Your task to perform on an android device: Open Reddit.com Image 0: 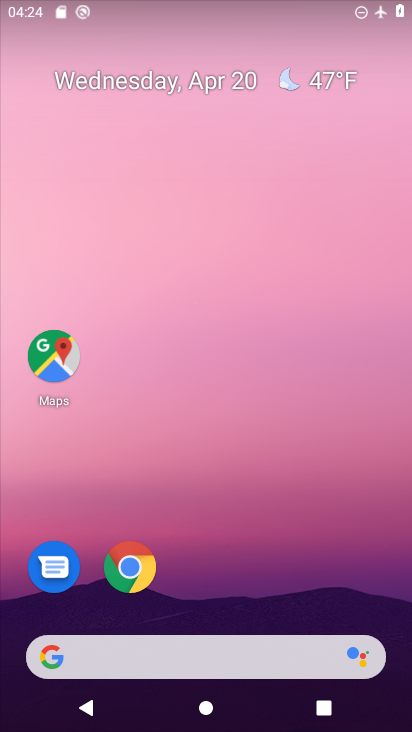
Step 0: click (156, 648)
Your task to perform on an android device: Open Reddit.com Image 1: 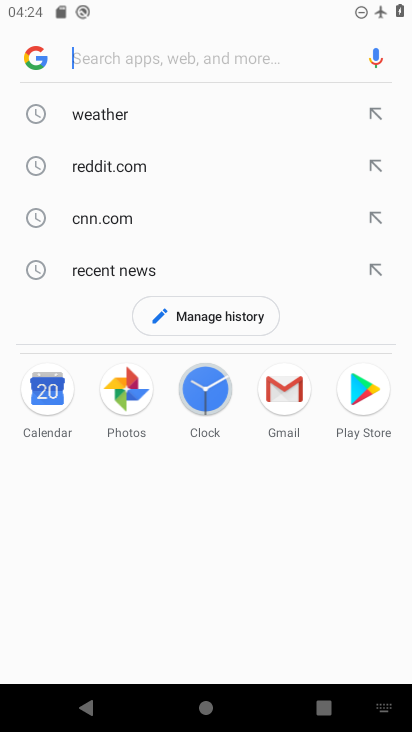
Step 1: click (180, 165)
Your task to perform on an android device: Open Reddit.com Image 2: 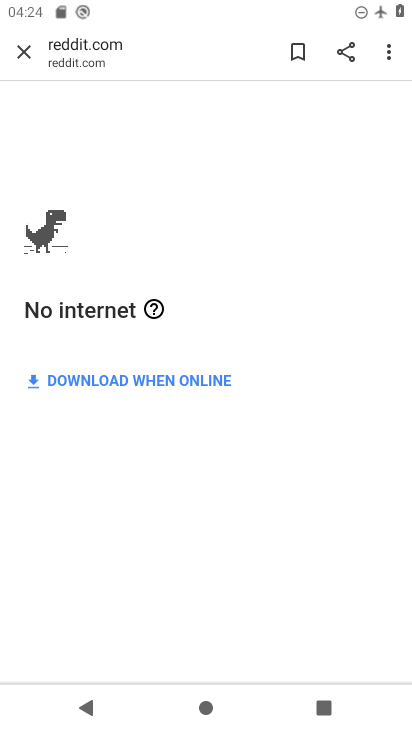
Step 2: drag from (198, 7) to (233, 544)
Your task to perform on an android device: Open Reddit.com Image 3: 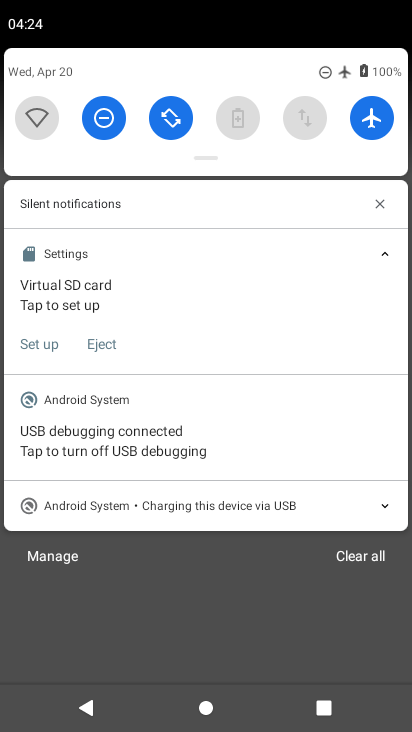
Step 3: click (366, 128)
Your task to perform on an android device: Open Reddit.com Image 4: 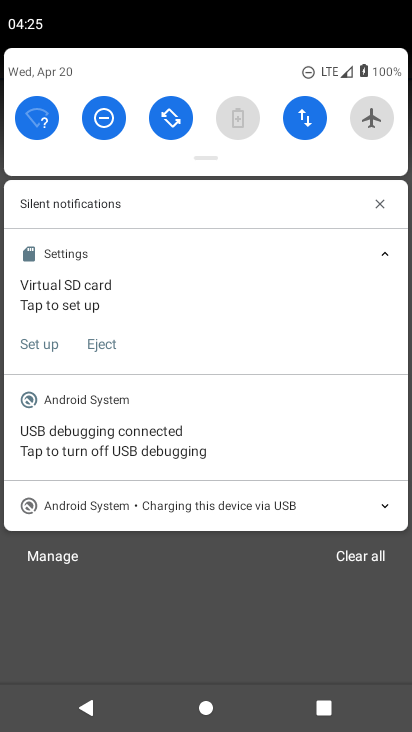
Step 4: task complete